Your task to perform on an android device: change text size in settings app Image 0: 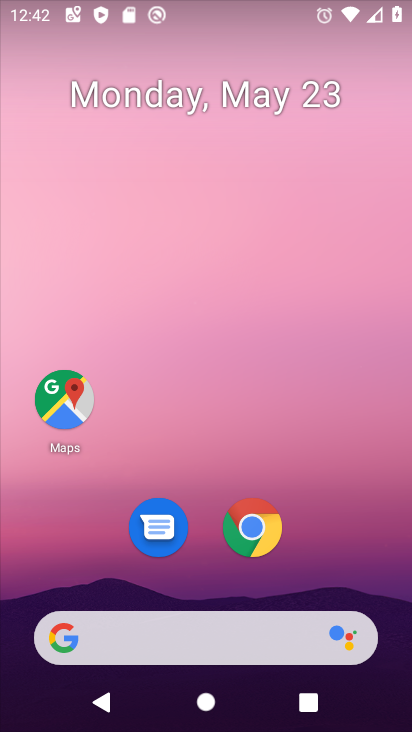
Step 0: drag from (307, 533) to (296, 63)
Your task to perform on an android device: change text size in settings app Image 1: 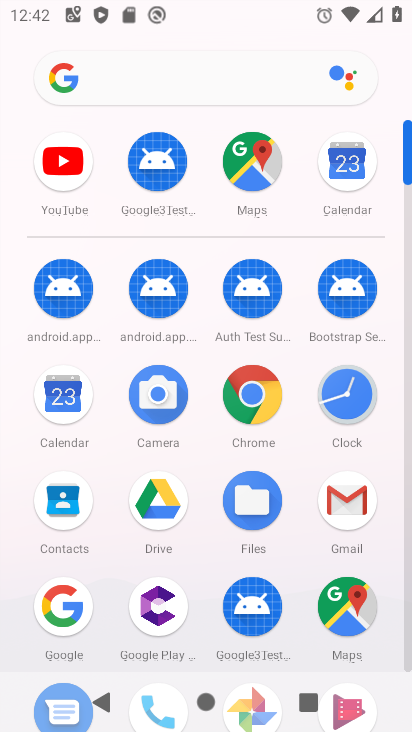
Step 1: click (405, 640)
Your task to perform on an android device: change text size in settings app Image 2: 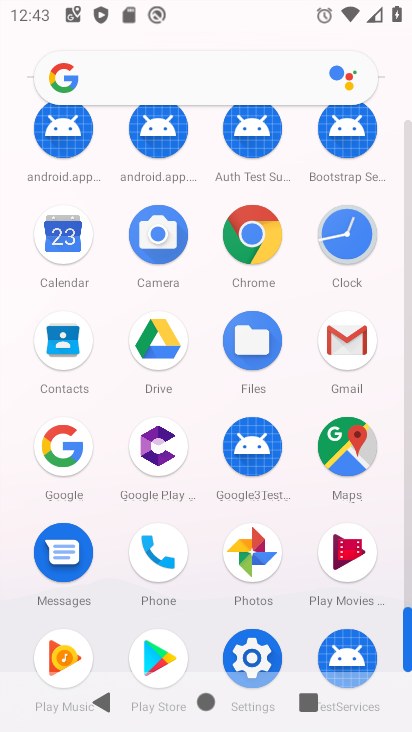
Step 2: click (263, 644)
Your task to perform on an android device: change text size in settings app Image 3: 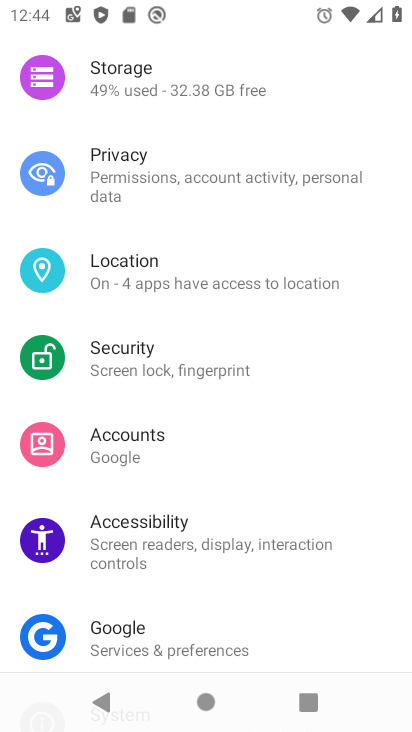
Step 3: task complete